Your task to perform on an android device: delete a single message in the gmail app Image 0: 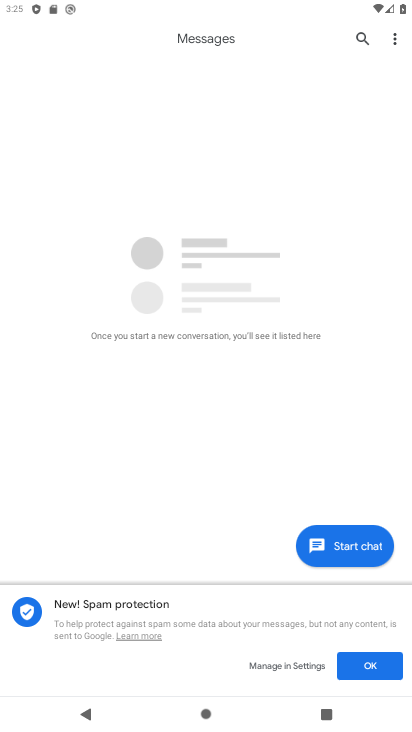
Step 0: press home button
Your task to perform on an android device: delete a single message in the gmail app Image 1: 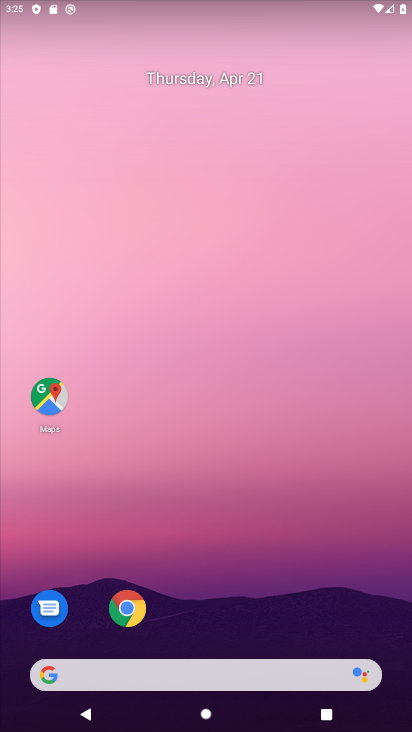
Step 1: drag from (293, 497) to (313, 158)
Your task to perform on an android device: delete a single message in the gmail app Image 2: 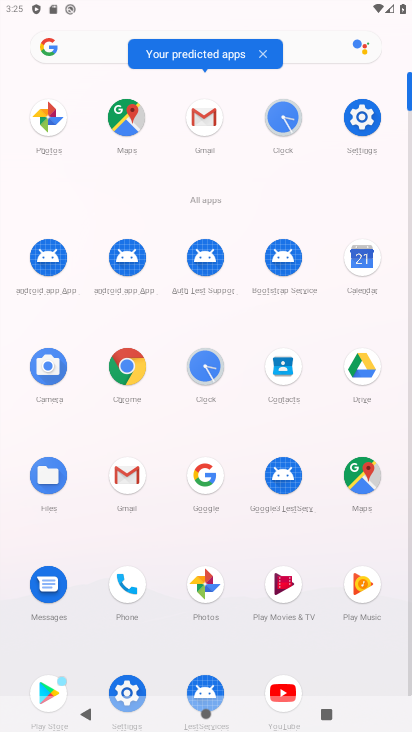
Step 2: click (200, 131)
Your task to perform on an android device: delete a single message in the gmail app Image 3: 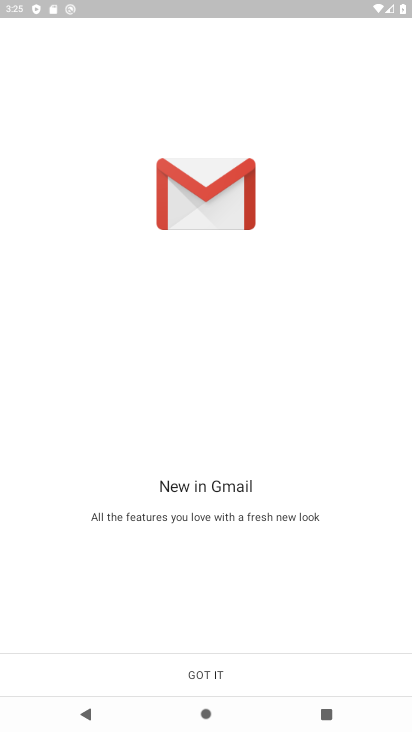
Step 3: click (218, 673)
Your task to perform on an android device: delete a single message in the gmail app Image 4: 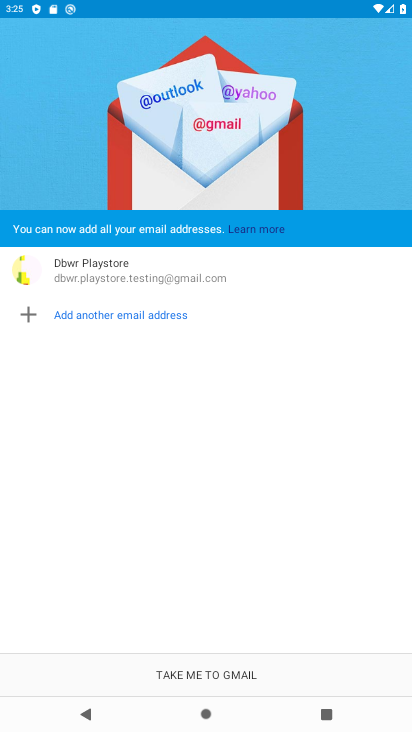
Step 4: click (217, 671)
Your task to perform on an android device: delete a single message in the gmail app Image 5: 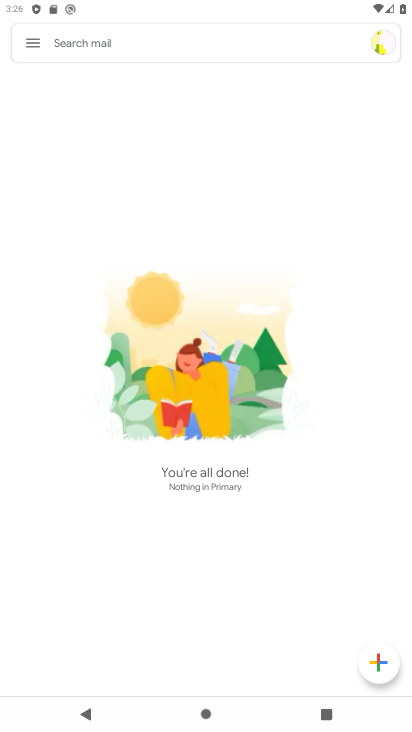
Step 5: task complete